Your task to perform on an android device: add a contact Image 0: 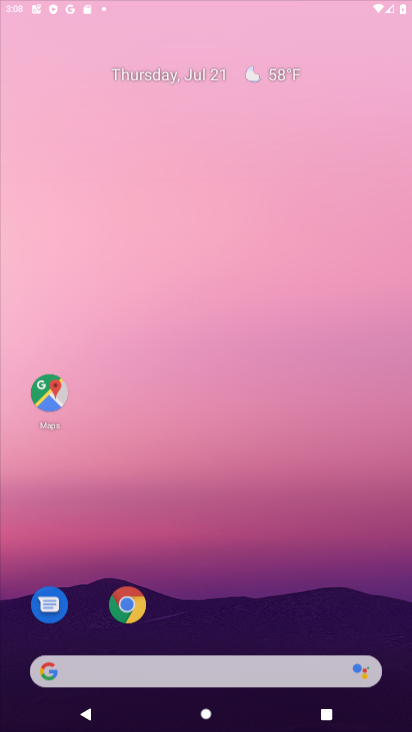
Step 0: press home button
Your task to perform on an android device: add a contact Image 1: 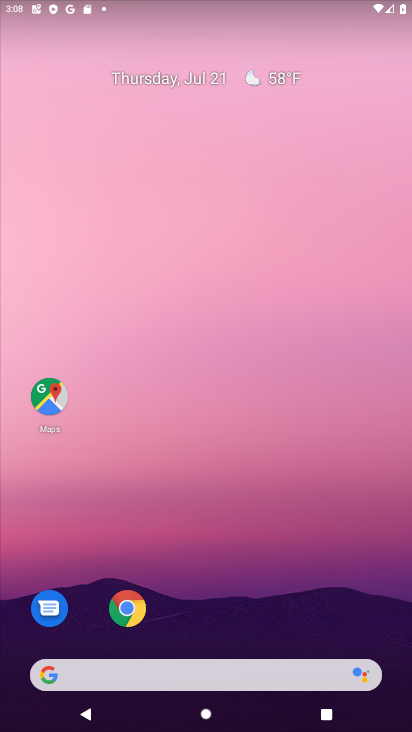
Step 1: drag from (216, 630) to (268, 127)
Your task to perform on an android device: add a contact Image 2: 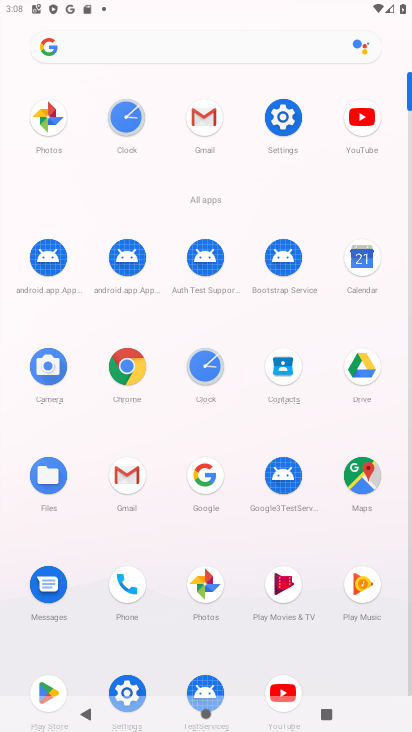
Step 2: click (278, 367)
Your task to perform on an android device: add a contact Image 3: 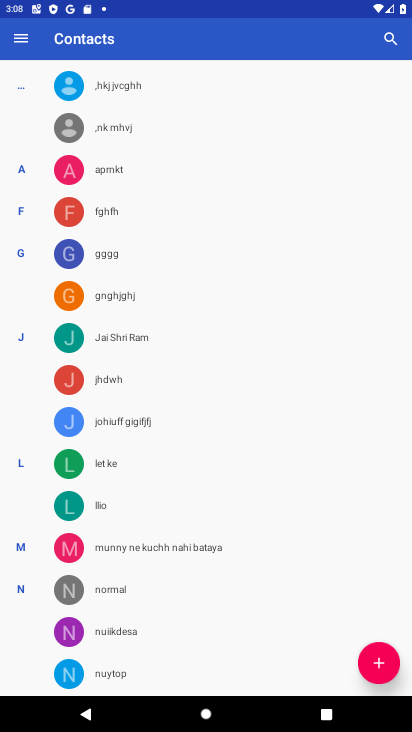
Step 3: click (376, 653)
Your task to perform on an android device: add a contact Image 4: 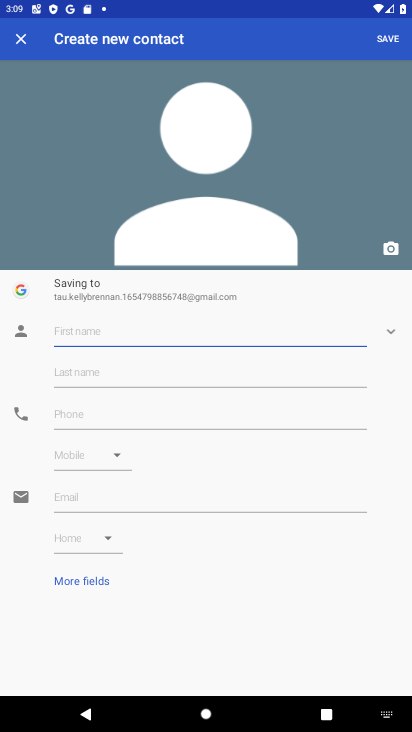
Step 4: type "ankit"
Your task to perform on an android device: add a contact Image 5: 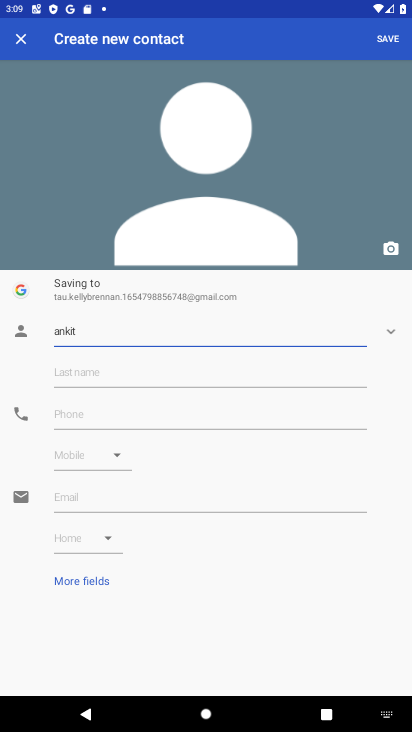
Step 5: click (386, 41)
Your task to perform on an android device: add a contact Image 6: 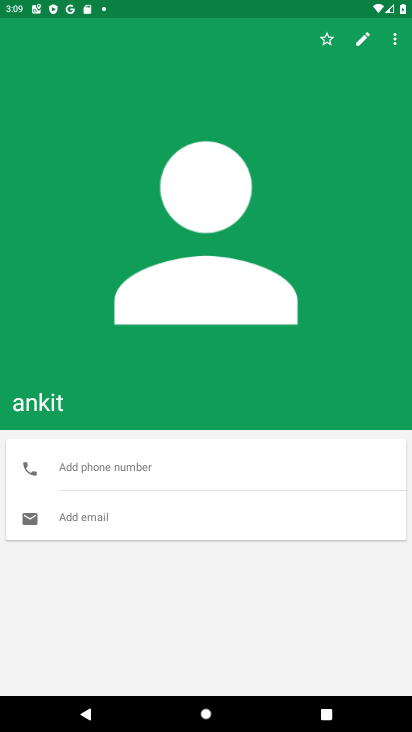
Step 6: task complete